Your task to perform on an android device: check android version Image 0: 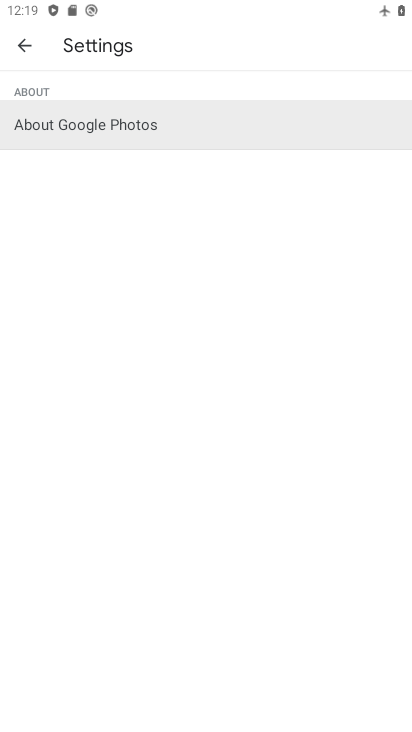
Step 0: press home button
Your task to perform on an android device: check android version Image 1: 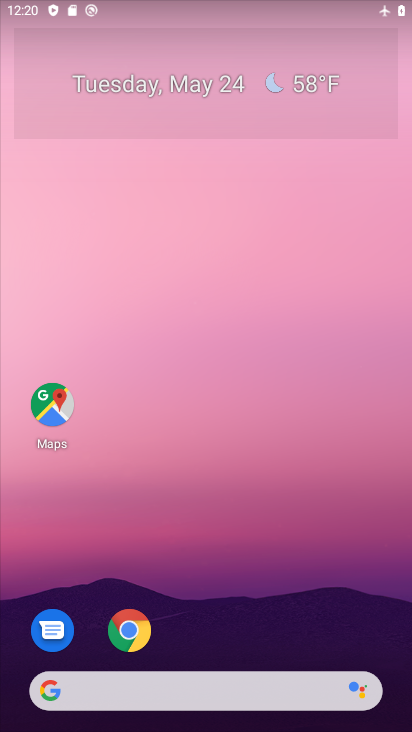
Step 1: drag from (251, 577) to (198, 97)
Your task to perform on an android device: check android version Image 2: 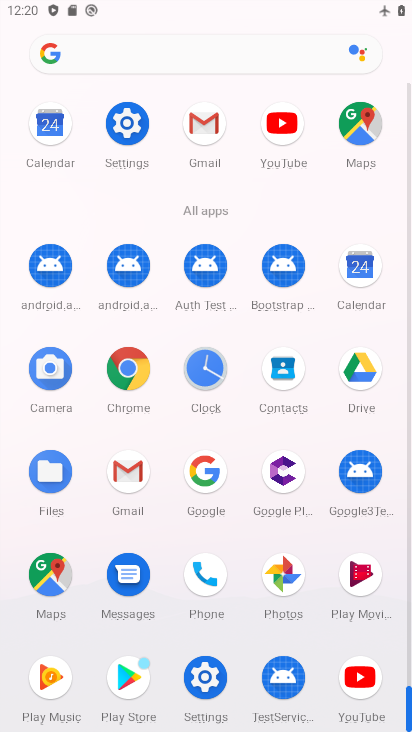
Step 2: click (127, 122)
Your task to perform on an android device: check android version Image 3: 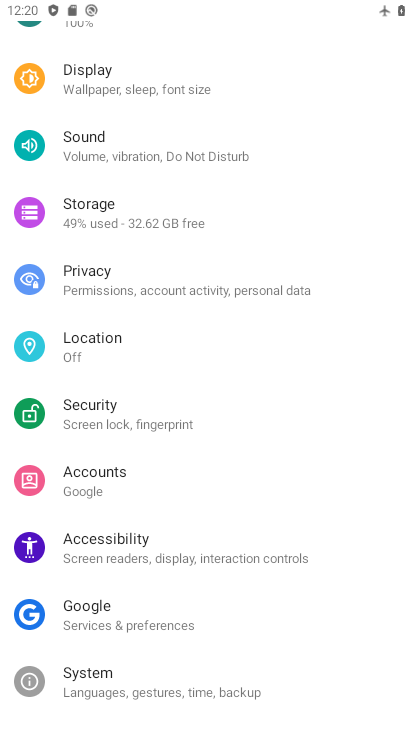
Step 3: drag from (158, 591) to (255, 477)
Your task to perform on an android device: check android version Image 4: 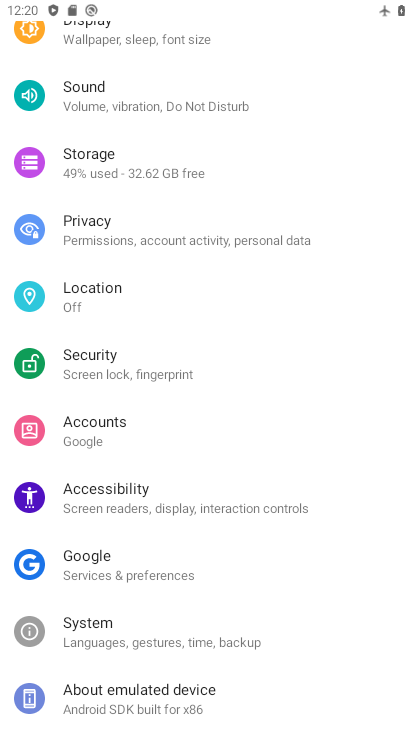
Step 4: click (112, 689)
Your task to perform on an android device: check android version Image 5: 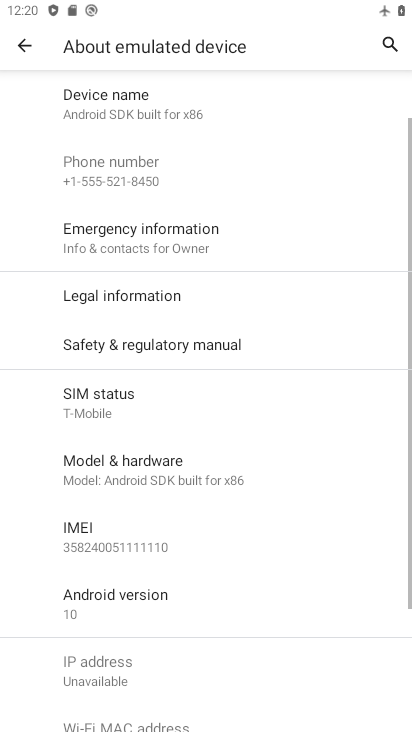
Step 5: click (132, 597)
Your task to perform on an android device: check android version Image 6: 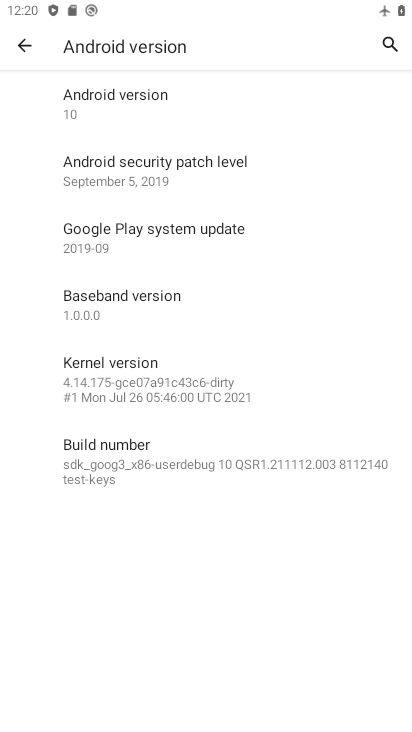
Step 6: task complete